Your task to perform on an android device: Open Yahoo.com Image 0: 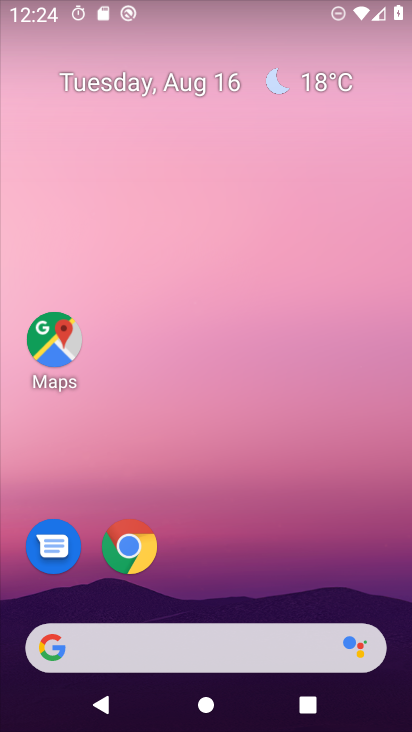
Step 0: click (133, 543)
Your task to perform on an android device: Open Yahoo.com Image 1: 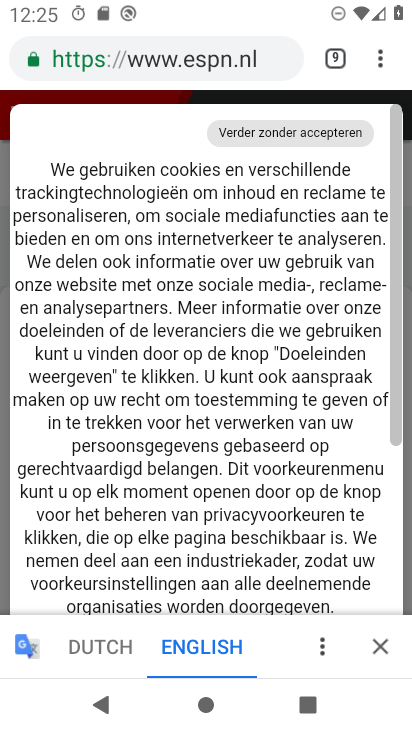
Step 1: click (380, 62)
Your task to perform on an android device: Open Yahoo.com Image 2: 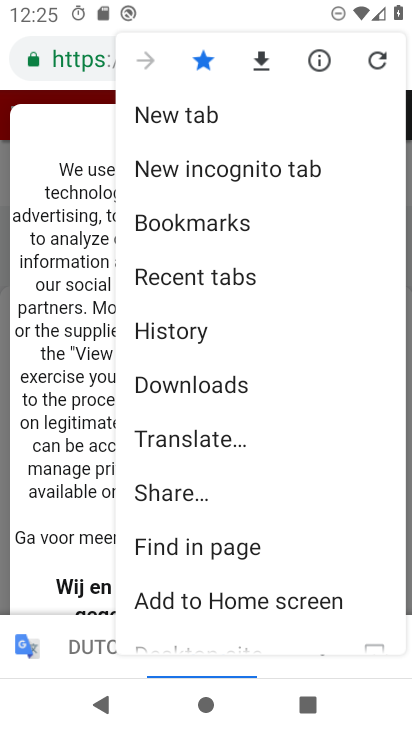
Step 2: click (185, 112)
Your task to perform on an android device: Open Yahoo.com Image 3: 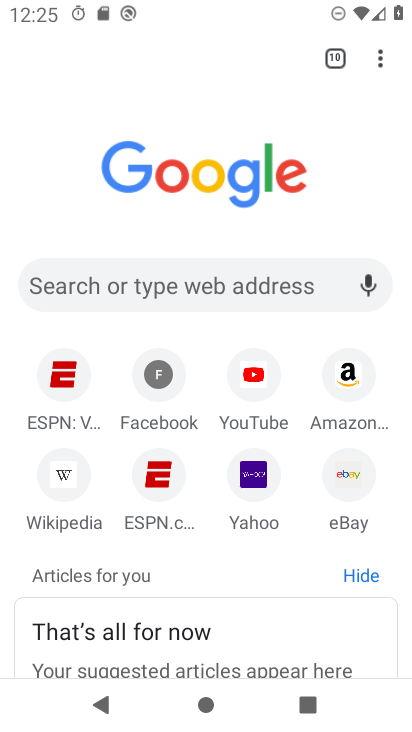
Step 3: click (242, 476)
Your task to perform on an android device: Open Yahoo.com Image 4: 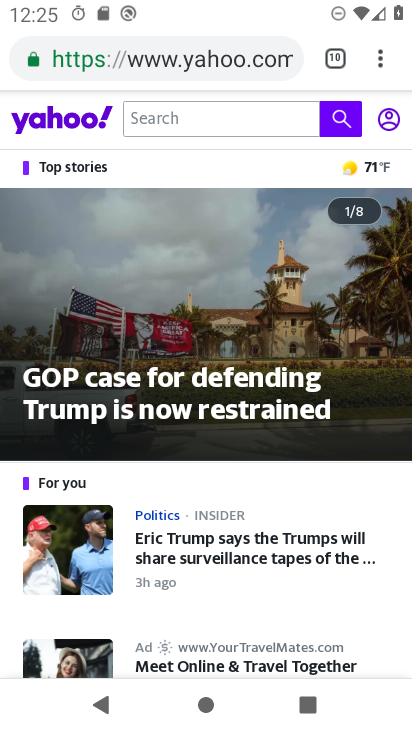
Step 4: task complete